Your task to perform on an android device: Open Android settings Image 0: 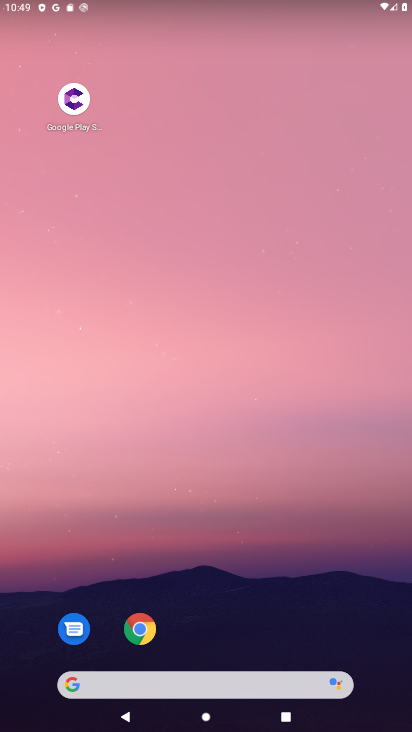
Step 0: drag from (238, 599) to (229, 251)
Your task to perform on an android device: Open Android settings Image 1: 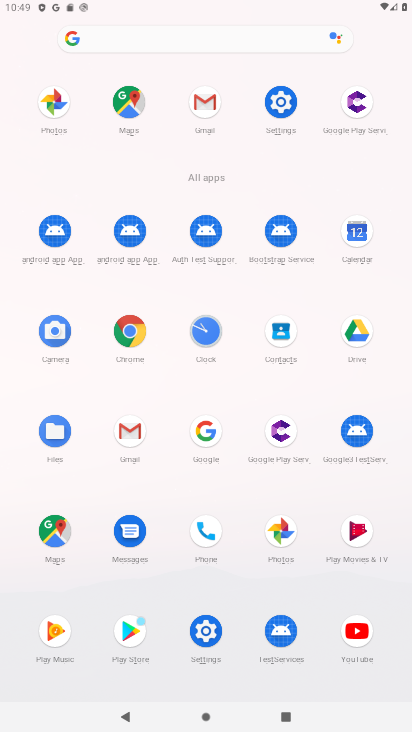
Step 1: click (280, 82)
Your task to perform on an android device: Open Android settings Image 2: 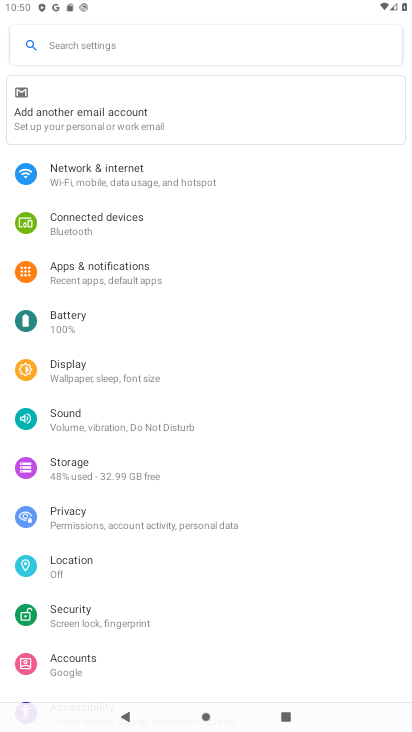
Step 2: task complete